Your task to perform on an android device: turn notification dots on Image 0: 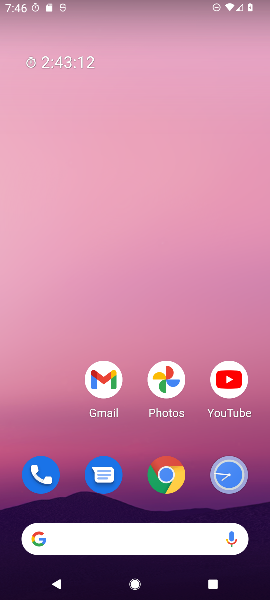
Step 0: press home button
Your task to perform on an android device: turn notification dots on Image 1: 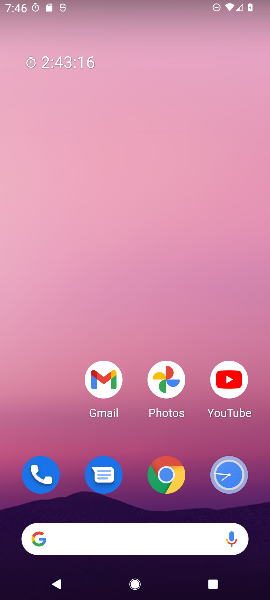
Step 1: drag from (70, 435) to (76, 203)
Your task to perform on an android device: turn notification dots on Image 2: 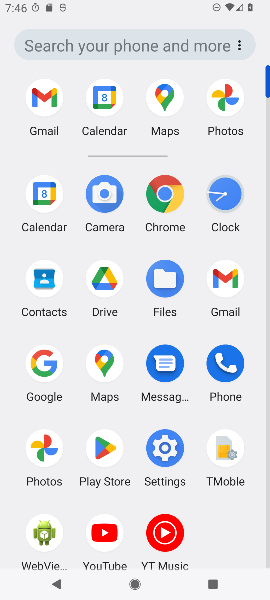
Step 2: click (166, 451)
Your task to perform on an android device: turn notification dots on Image 3: 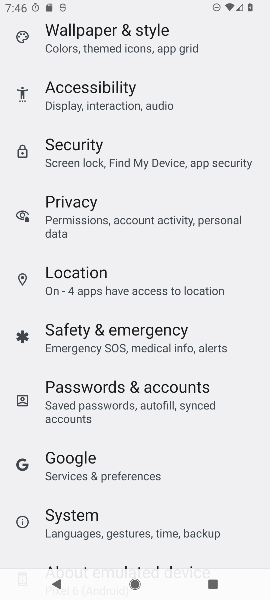
Step 3: drag from (244, 257) to (256, 295)
Your task to perform on an android device: turn notification dots on Image 4: 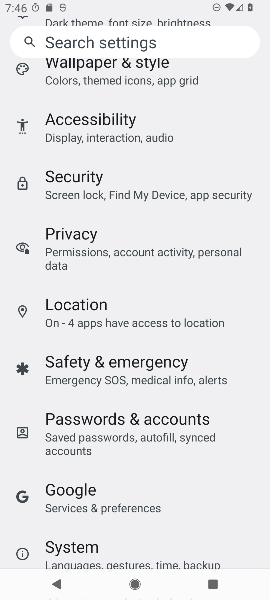
Step 4: drag from (252, 127) to (250, 246)
Your task to perform on an android device: turn notification dots on Image 5: 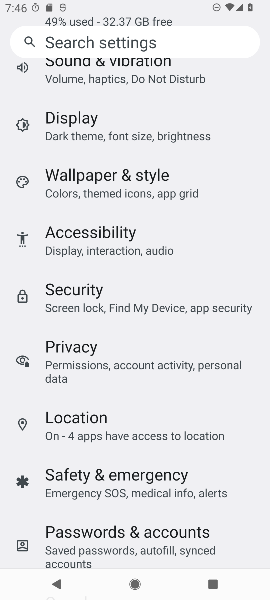
Step 5: drag from (245, 114) to (247, 222)
Your task to perform on an android device: turn notification dots on Image 6: 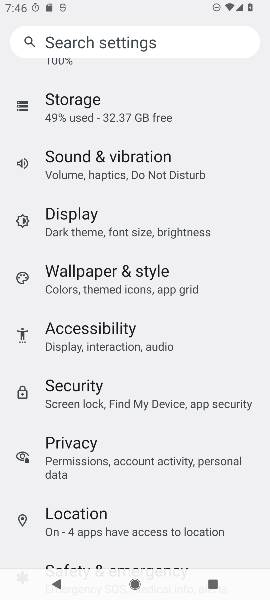
Step 6: drag from (243, 103) to (244, 211)
Your task to perform on an android device: turn notification dots on Image 7: 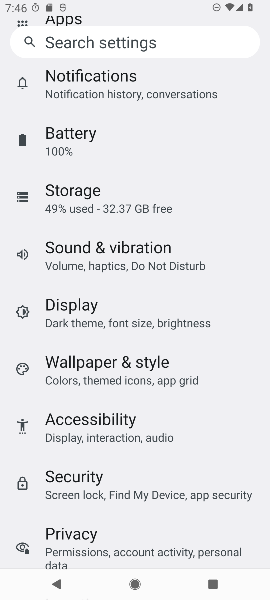
Step 7: drag from (242, 110) to (241, 215)
Your task to perform on an android device: turn notification dots on Image 8: 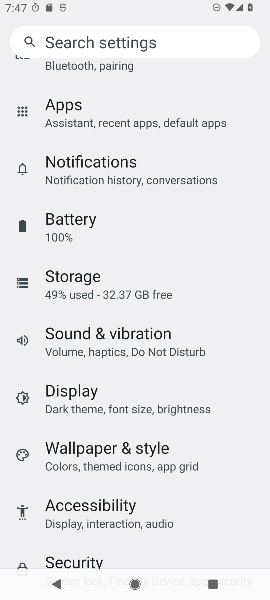
Step 8: click (235, 272)
Your task to perform on an android device: turn notification dots on Image 9: 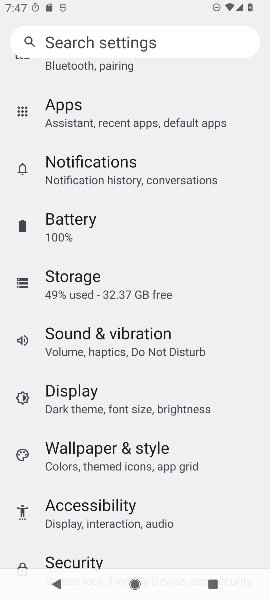
Step 9: drag from (243, 139) to (241, 287)
Your task to perform on an android device: turn notification dots on Image 10: 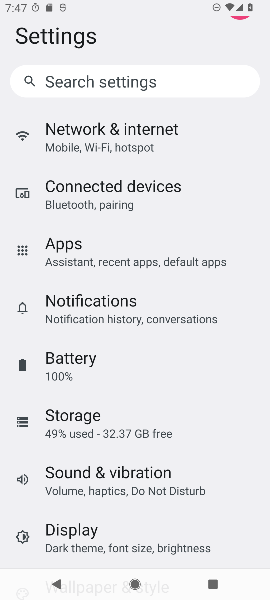
Step 10: click (172, 308)
Your task to perform on an android device: turn notification dots on Image 11: 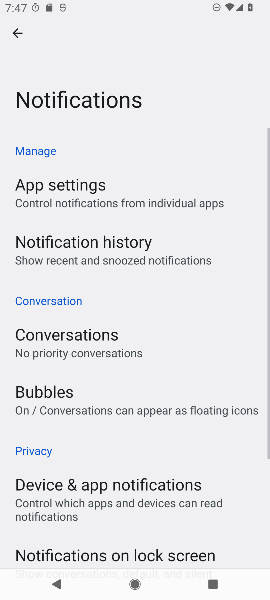
Step 11: task complete